Your task to perform on an android device: Turn off the flashlight Image 0: 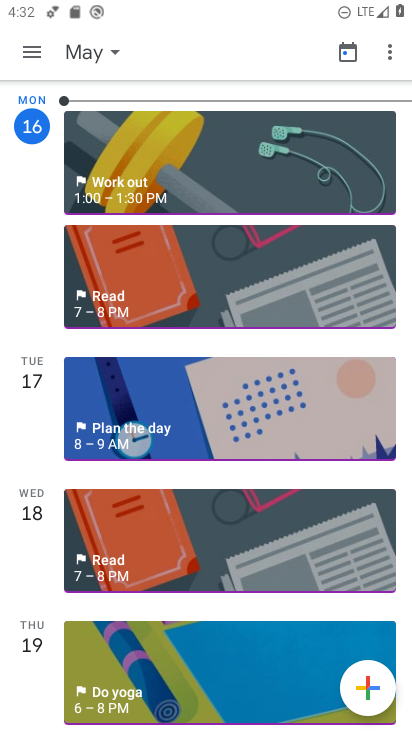
Step 0: press home button
Your task to perform on an android device: Turn off the flashlight Image 1: 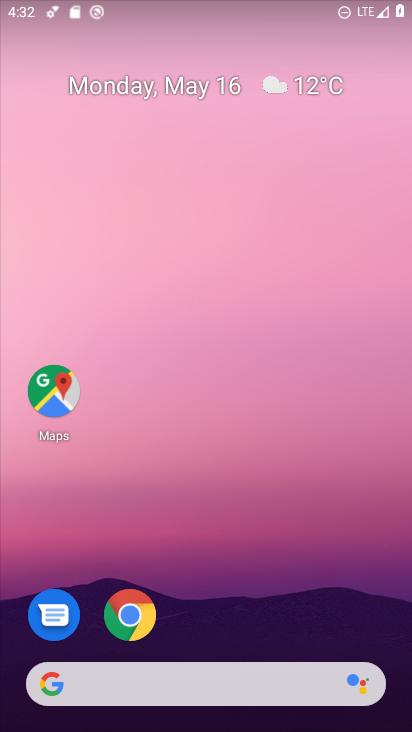
Step 1: drag from (216, 720) to (216, 185)
Your task to perform on an android device: Turn off the flashlight Image 2: 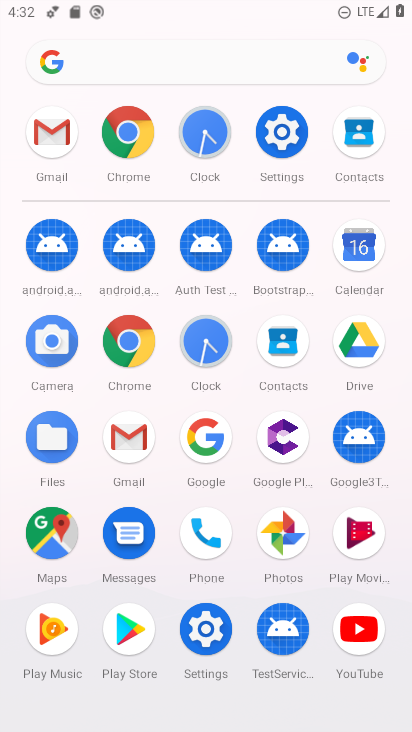
Step 2: click (282, 127)
Your task to perform on an android device: Turn off the flashlight Image 3: 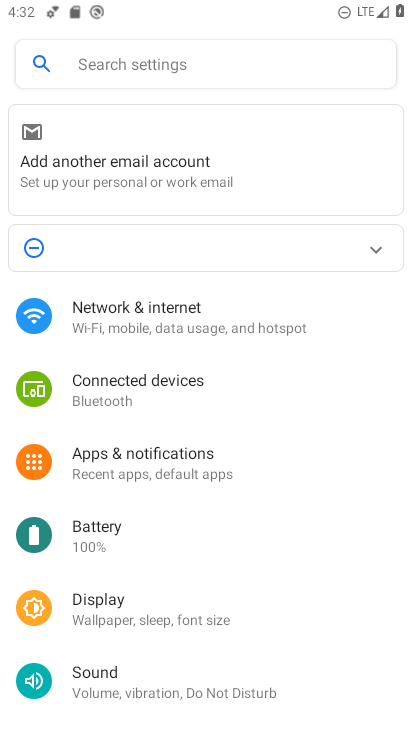
Step 3: task complete